Your task to perform on an android device: turn off improve location accuracy Image 0: 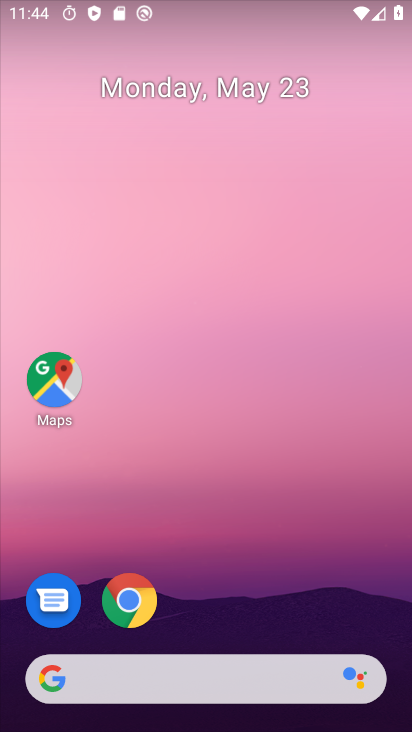
Step 0: drag from (353, 543) to (329, 160)
Your task to perform on an android device: turn off improve location accuracy Image 1: 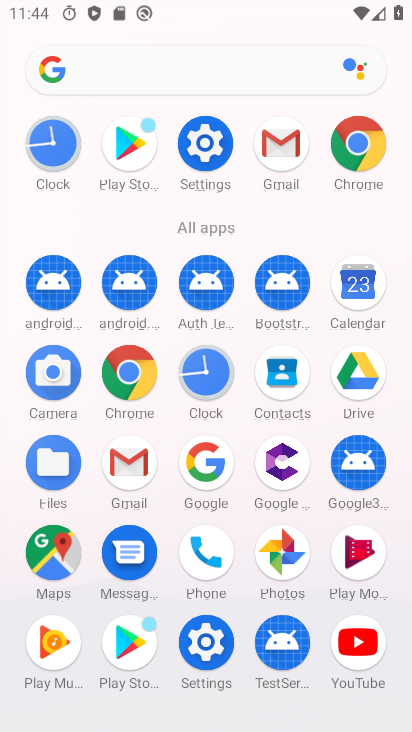
Step 1: click (212, 149)
Your task to perform on an android device: turn off improve location accuracy Image 2: 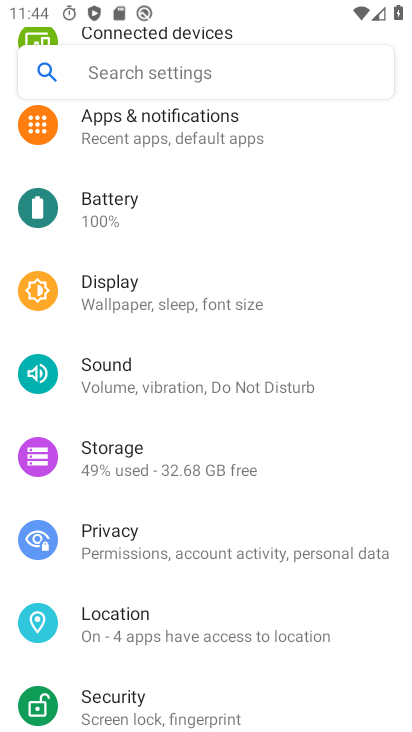
Step 2: drag from (209, 555) to (270, 210)
Your task to perform on an android device: turn off improve location accuracy Image 3: 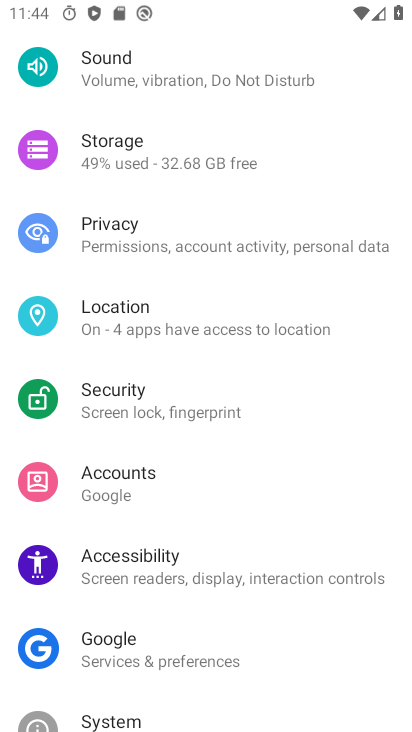
Step 3: click (169, 325)
Your task to perform on an android device: turn off improve location accuracy Image 4: 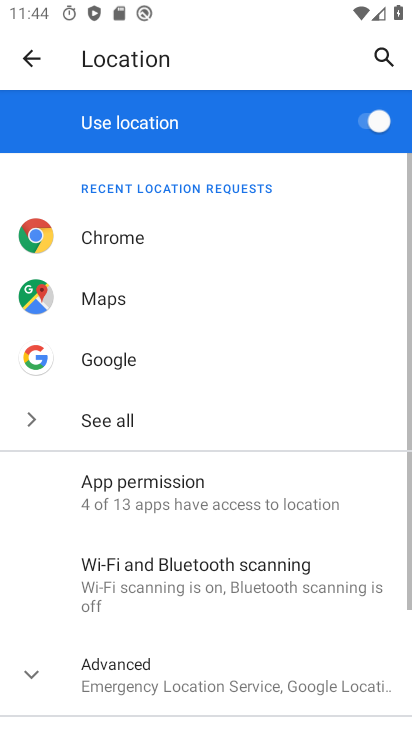
Step 4: click (162, 670)
Your task to perform on an android device: turn off improve location accuracy Image 5: 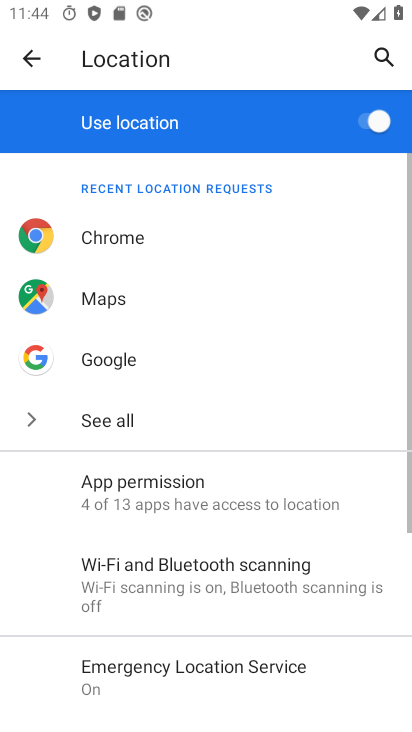
Step 5: drag from (169, 635) to (253, 236)
Your task to perform on an android device: turn off improve location accuracy Image 6: 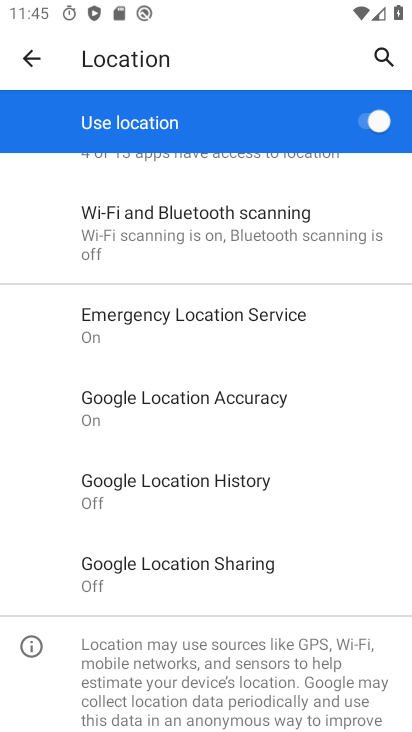
Step 6: click (208, 395)
Your task to perform on an android device: turn off improve location accuracy Image 7: 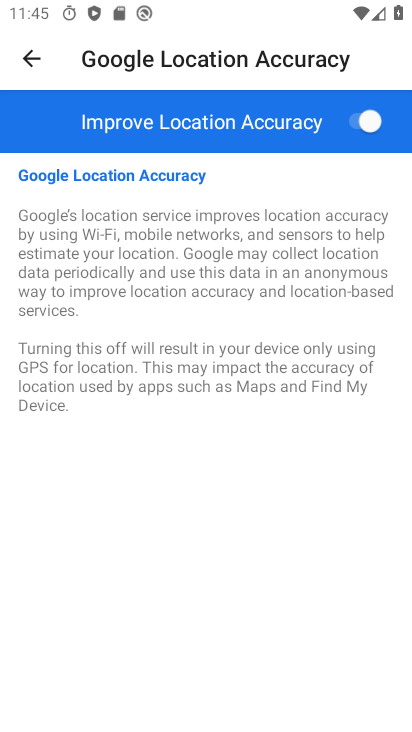
Step 7: click (347, 124)
Your task to perform on an android device: turn off improve location accuracy Image 8: 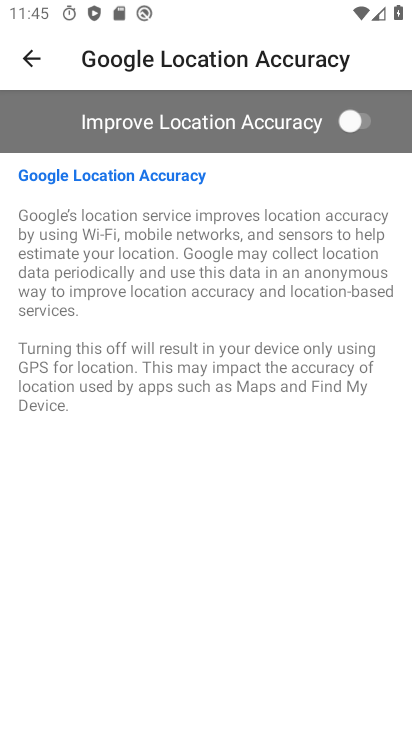
Step 8: task complete